Your task to perform on an android device: change the clock display to analog Image 0: 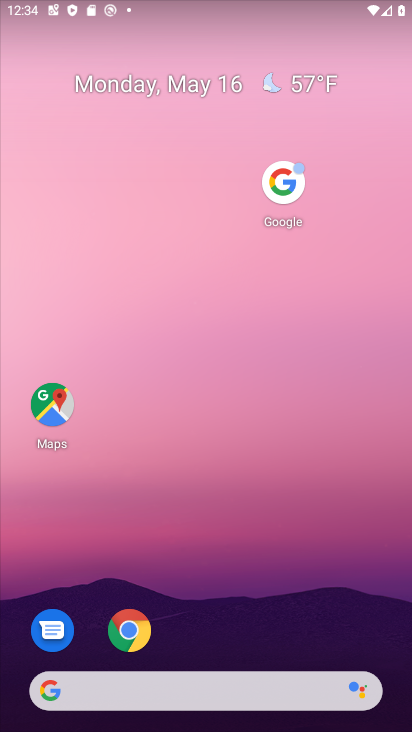
Step 0: drag from (239, 659) to (181, 177)
Your task to perform on an android device: change the clock display to analog Image 1: 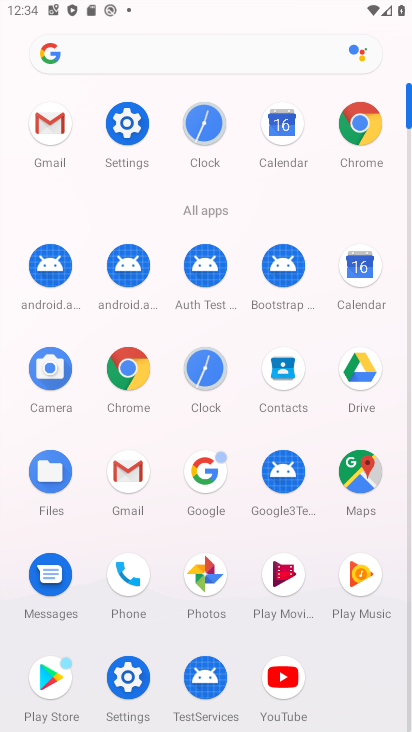
Step 1: click (205, 134)
Your task to perform on an android device: change the clock display to analog Image 2: 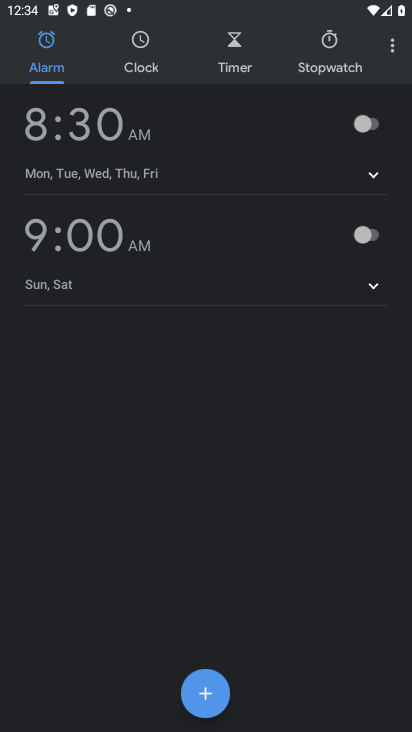
Step 2: click (392, 47)
Your task to perform on an android device: change the clock display to analog Image 3: 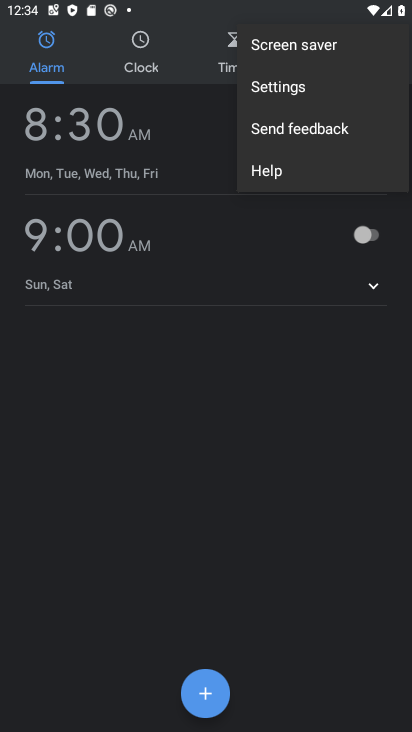
Step 3: click (292, 87)
Your task to perform on an android device: change the clock display to analog Image 4: 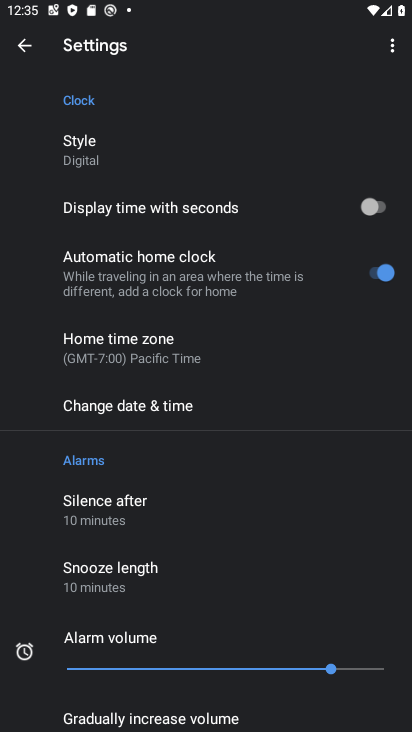
Step 4: click (99, 160)
Your task to perform on an android device: change the clock display to analog Image 5: 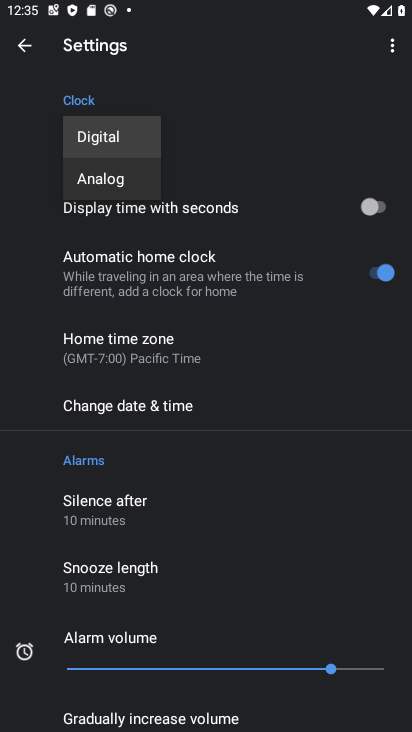
Step 5: click (107, 183)
Your task to perform on an android device: change the clock display to analog Image 6: 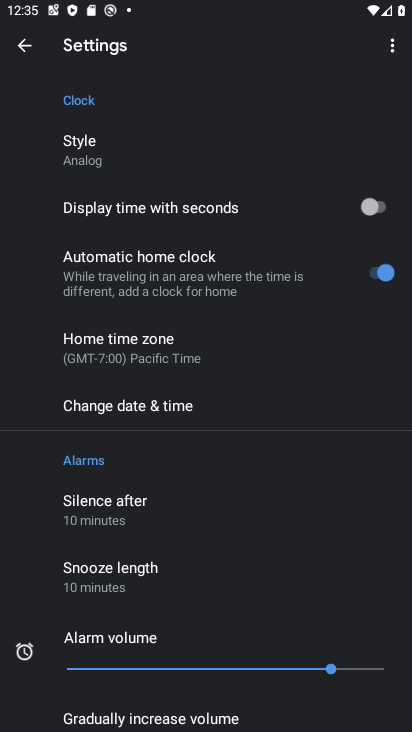
Step 6: task complete